Your task to perform on an android device: Go to accessibility settings Image 0: 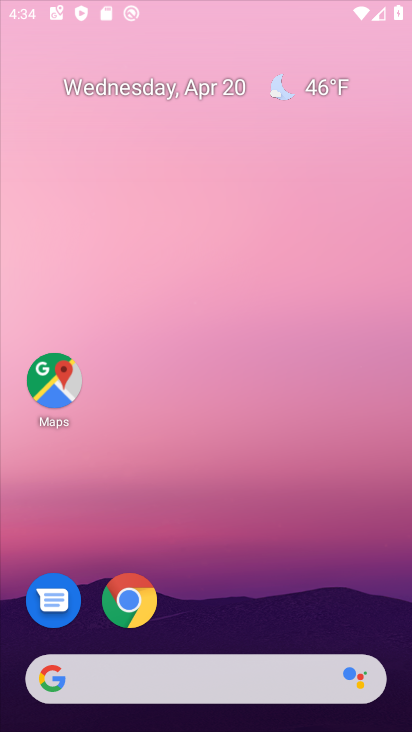
Step 0: click (223, 67)
Your task to perform on an android device: Go to accessibility settings Image 1: 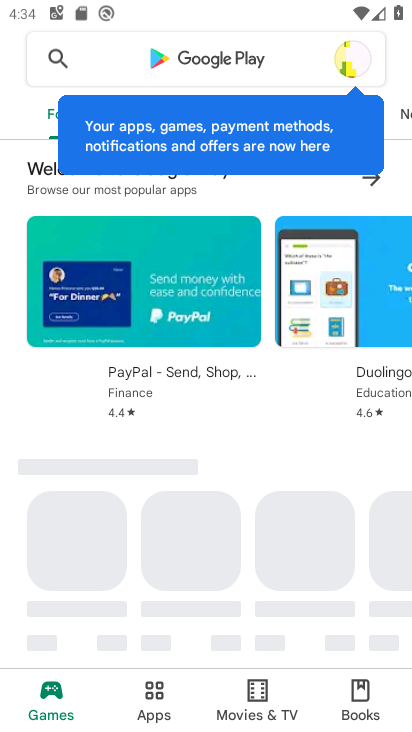
Step 1: press home button
Your task to perform on an android device: Go to accessibility settings Image 2: 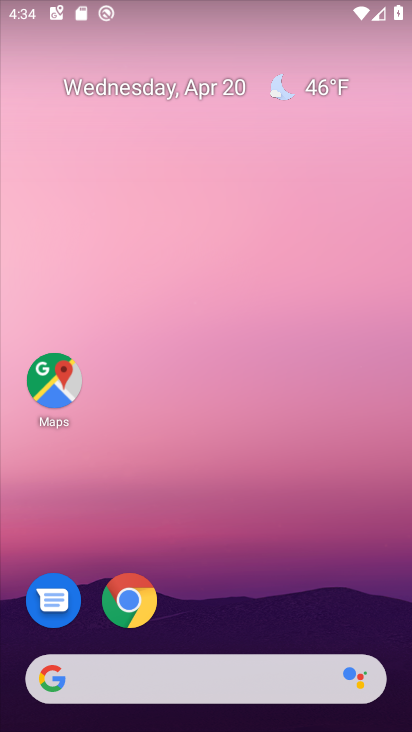
Step 2: drag from (210, 587) to (218, 223)
Your task to perform on an android device: Go to accessibility settings Image 3: 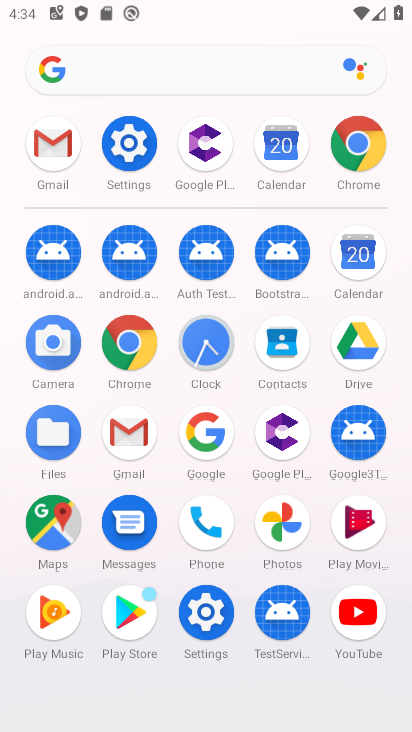
Step 3: click (203, 605)
Your task to perform on an android device: Go to accessibility settings Image 4: 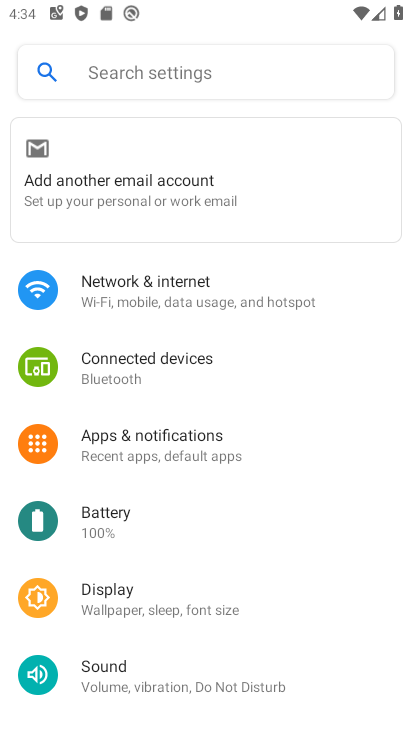
Step 4: drag from (209, 650) to (202, 137)
Your task to perform on an android device: Go to accessibility settings Image 5: 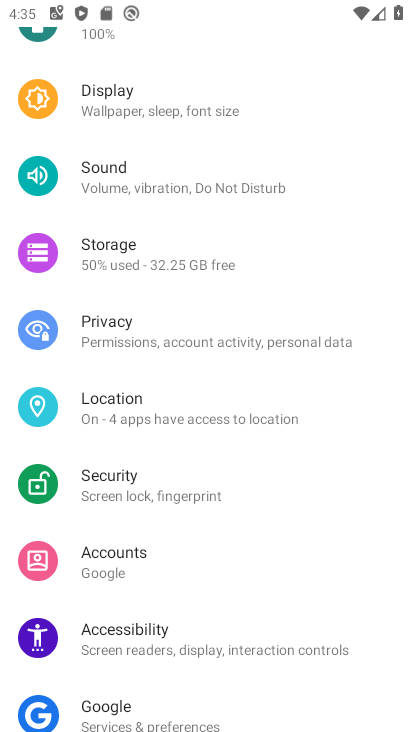
Step 5: drag from (191, 578) to (198, 135)
Your task to perform on an android device: Go to accessibility settings Image 6: 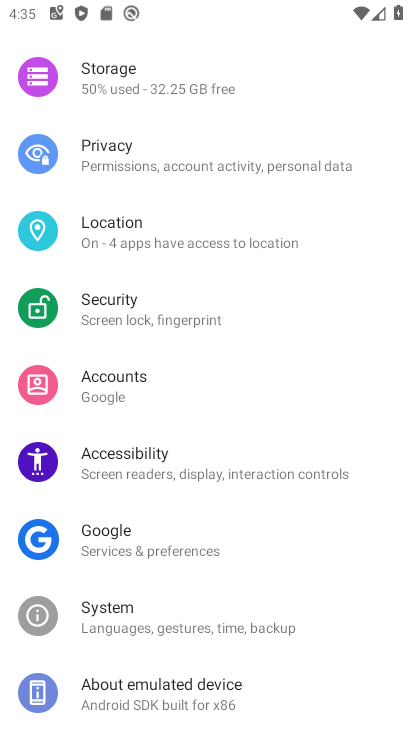
Step 6: click (179, 452)
Your task to perform on an android device: Go to accessibility settings Image 7: 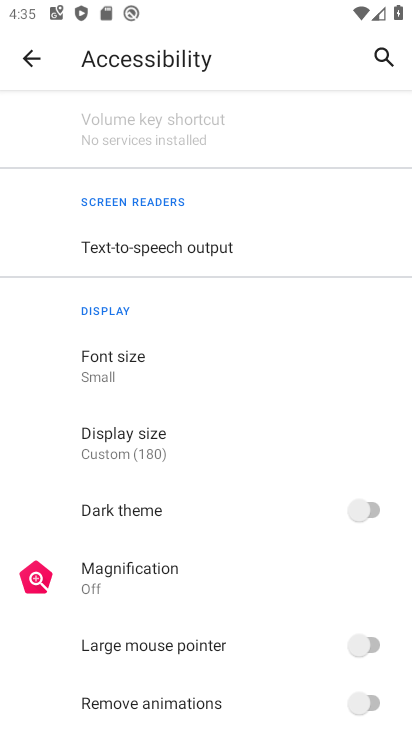
Step 7: task complete